Your task to perform on an android device: turn on notifications settings in the gmail app Image 0: 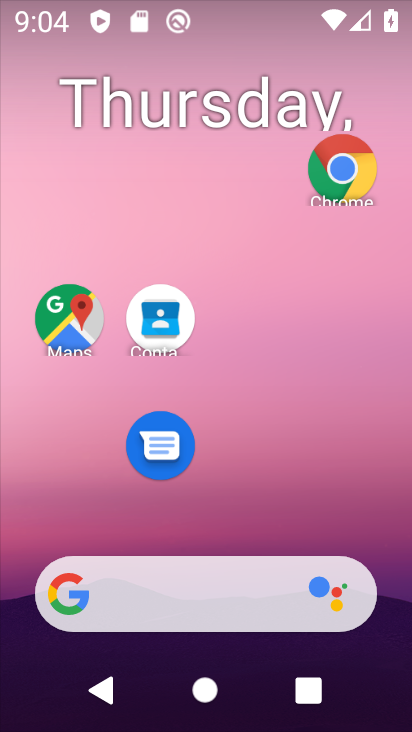
Step 0: drag from (252, 533) to (225, 235)
Your task to perform on an android device: turn on notifications settings in the gmail app Image 1: 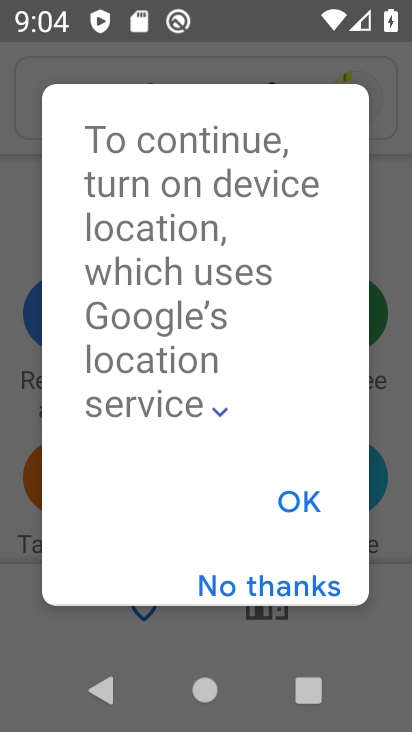
Step 1: press home button
Your task to perform on an android device: turn on notifications settings in the gmail app Image 2: 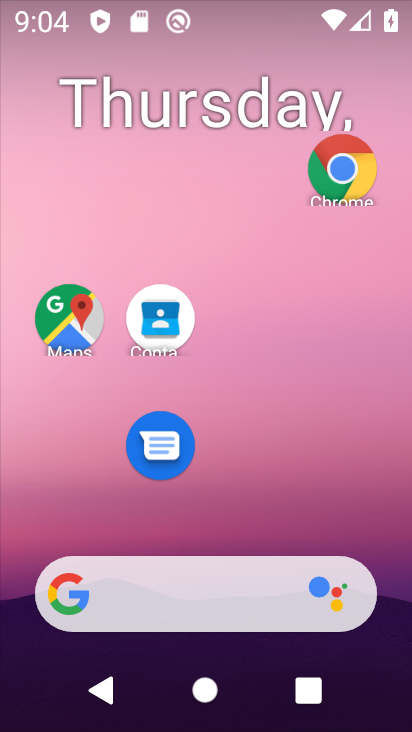
Step 2: drag from (221, 628) to (259, 91)
Your task to perform on an android device: turn on notifications settings in the gmail app Image 3: 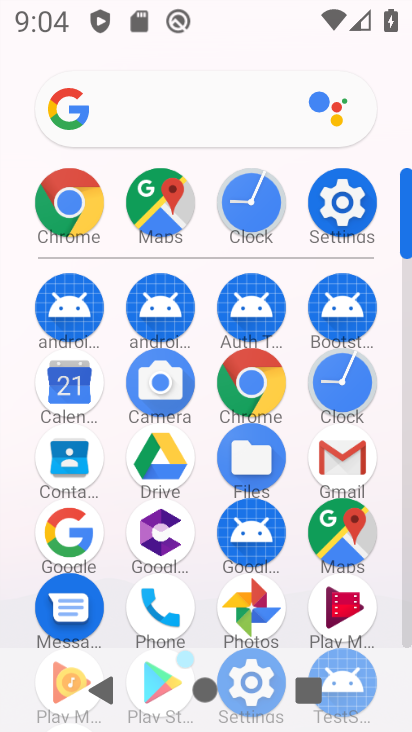
Step 3: click (335, 455)
Your task to perform on an android device: turn on notifications settings in the gmail app Image 4: 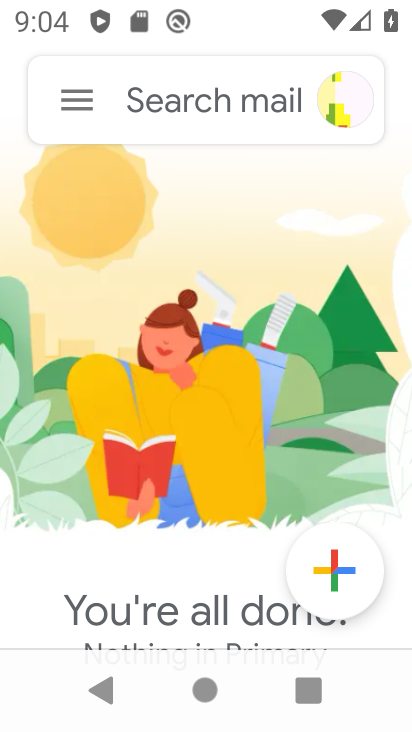
Step 4: click (73, 96)
Your task to perform on an android device: turn on notifications settings in the gmail app Image 5: 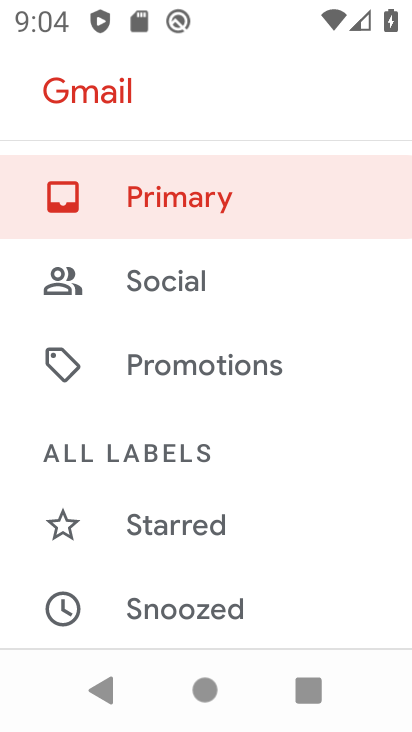
Step 5: drag from (155, 524) to (237, 132)
Your task to perform on an android device: turn on notifications settings in the gmail app Image 6: 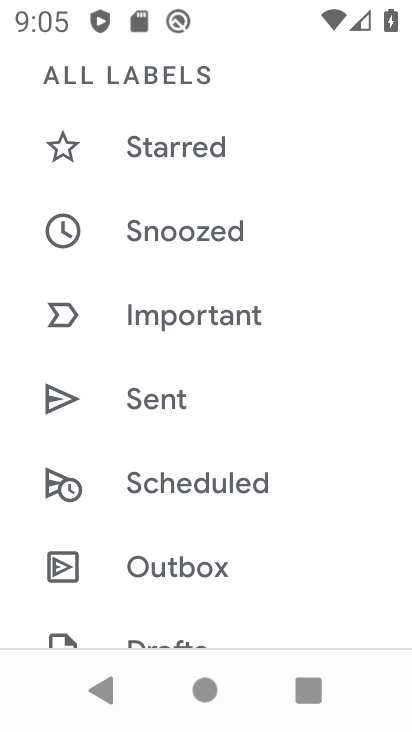
Step 6: drag from (164, 500) to (243, 205)
Your task to perform on an android device: turn on notifications settings in the gmail app Image 7: 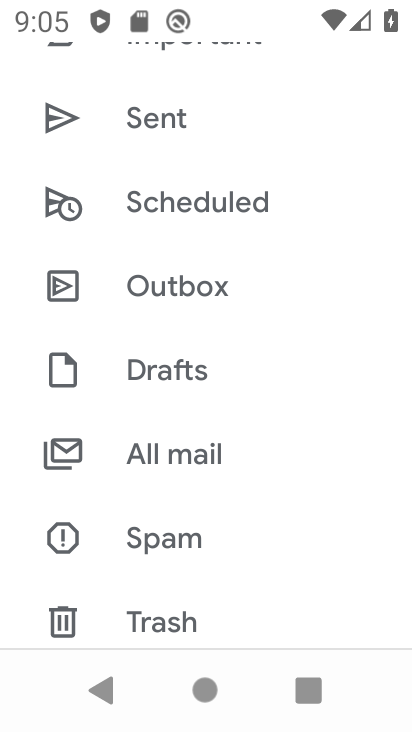
Step 7: drag from (174, 534) to (230, 200)
Your task to perform on an android device: turn on notifications settings in the gmail app Image 8: 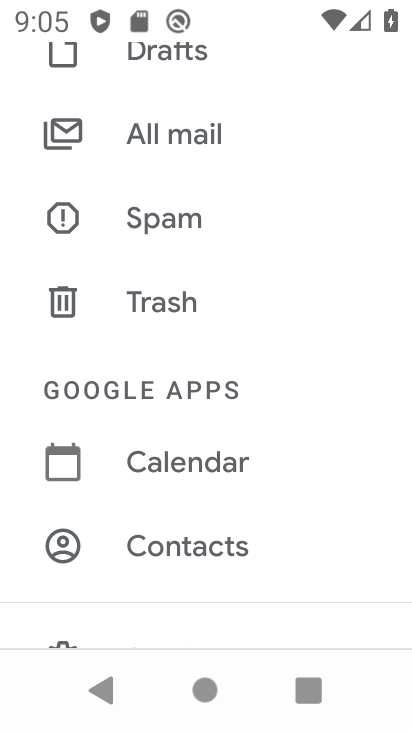
Step 8: drag from (211, 451) to (305, 153)
Your task to perform on an android device: turn on notifications settings in the gmail app Image 9: 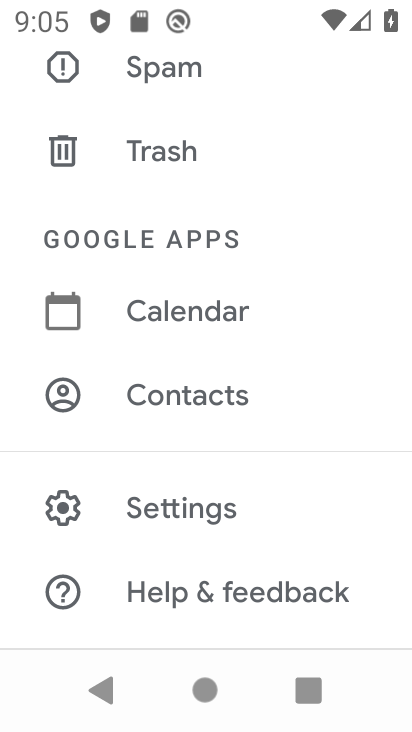
Step 9: click (181, 503)
Your task to perform on an android device: turn on notifications settings in the gmail app Image 10: 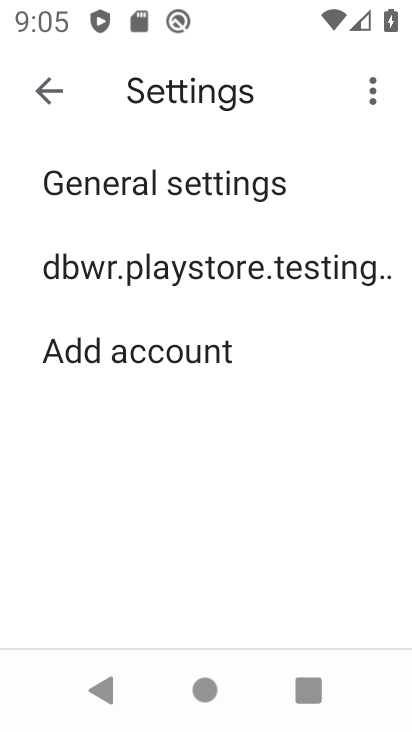
Step 10: click (191, 282)
Your task to perform on an android device: turn on notifications settings in the gmail app Image 11: 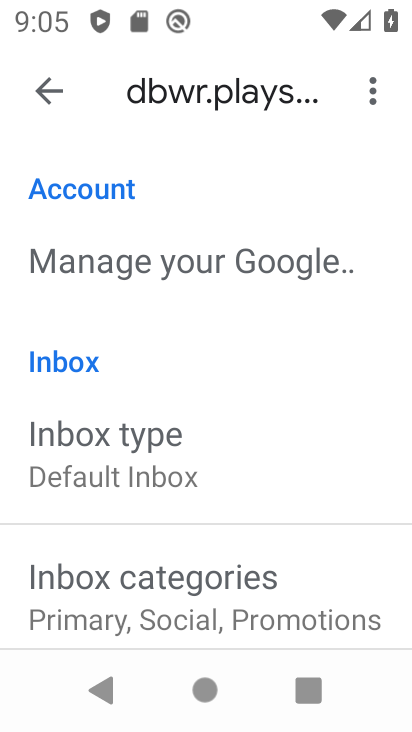
Step 11: drag from (221, 432) to (295, 199)
Your task to perform on an android device: turn on notifications settings in the gmail app Image 12: 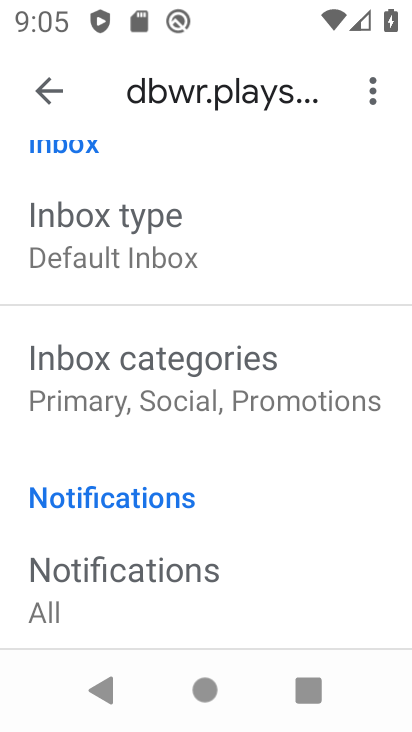
Step 12: drag from (224, 511) to (288, 375)
Your task to perform on an android device: turn on notifications settings in the gmail app Image 13: 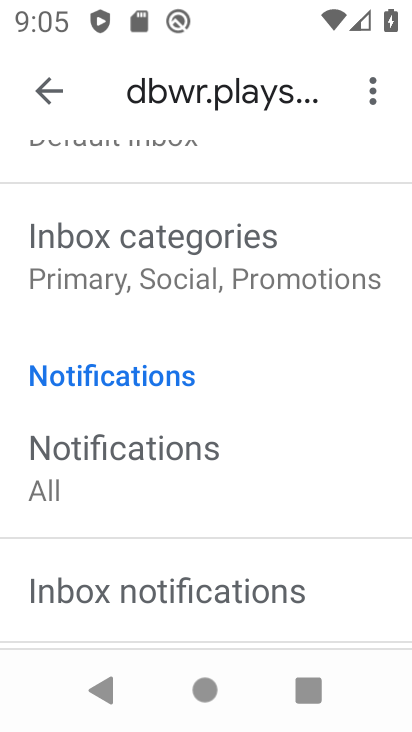
Step 13: click (184, 470)
Your task to perform on an android device: turn on notifications settings in the gmail app Image 14: 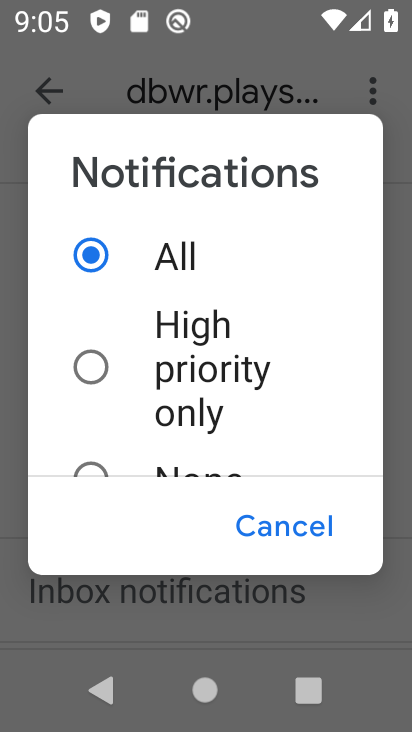
Step 14: click (211, 469)
Your task to perform on an android device: turn on notifications settings in the gmail app Image 15: 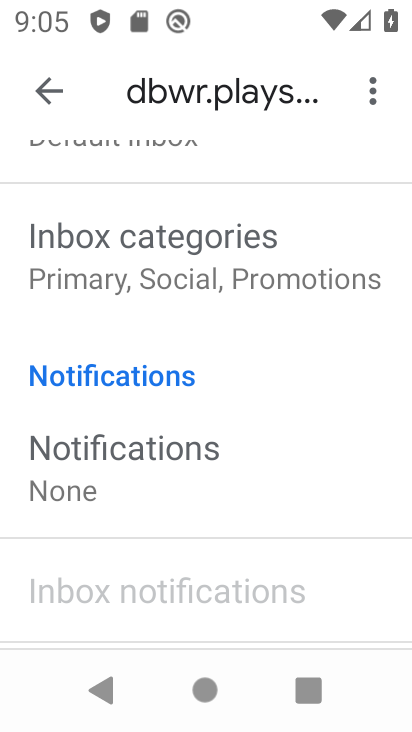
Step 15: task complete